Your task to perform on an android device: Go to privacy settings Image 0: 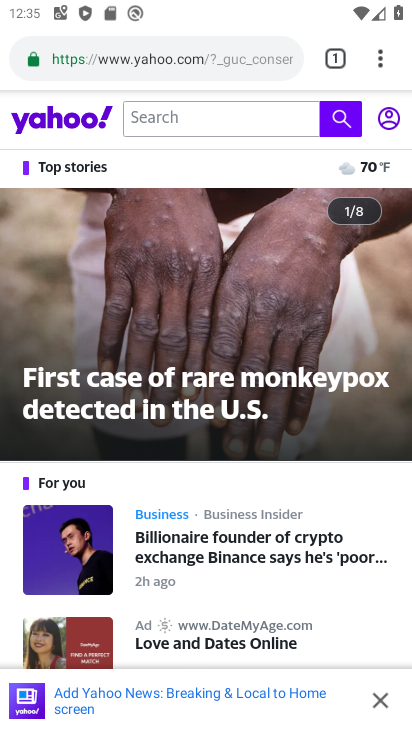
Step 0: click (376, 67)
Your task to perform on an android device: Go to privacy settings Image 1: 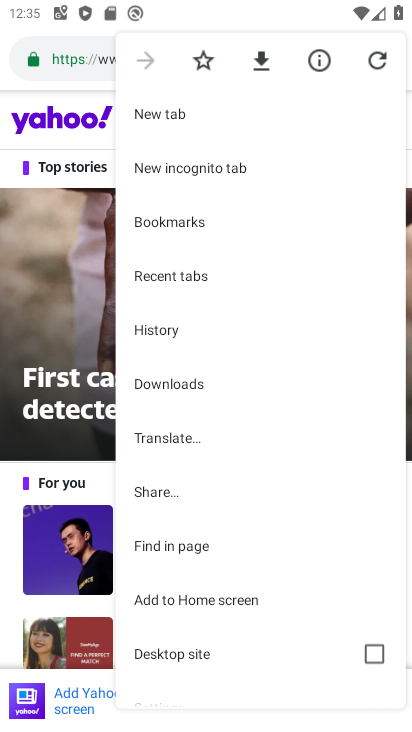
Step 1: press home button
Your task to perform on an android device: Go to privacy settings Image 2: 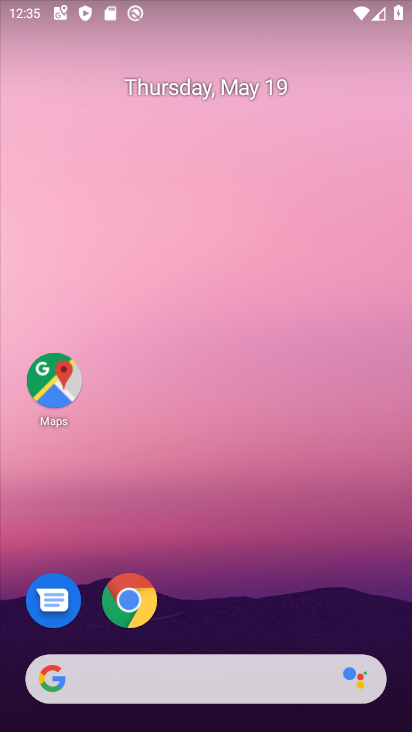
Step 2: drag from (280, 609) to (235, 74)
Your task to perform on an android device: Go to privacy settings Image 3: 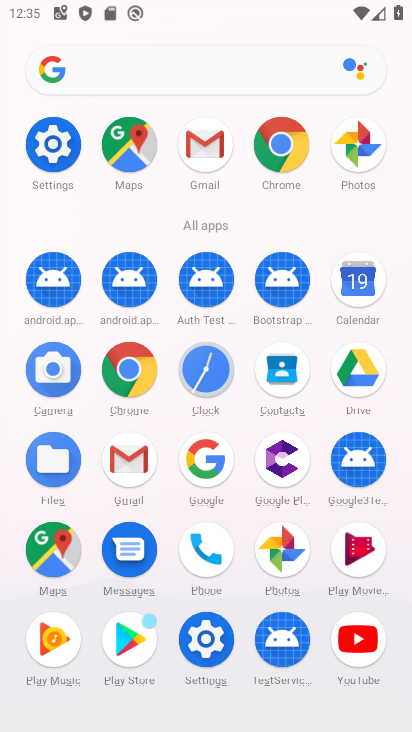
Step 3: click (47, 138)
Your task to perform on an android device: Go to privacy settings Image 4: 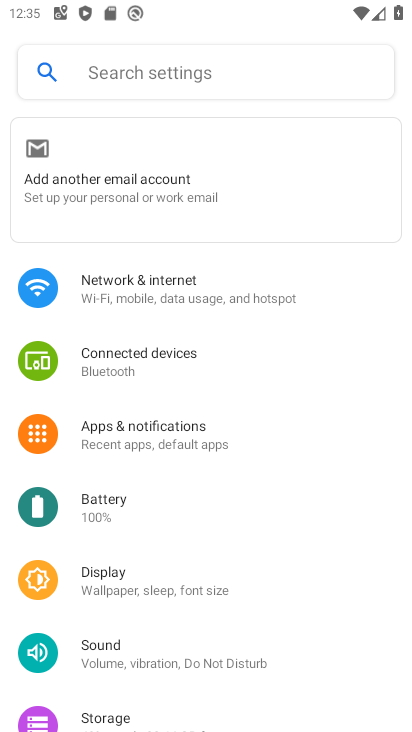
Step 4: drag from (159, 574) to (108, 294)
Your task to perform on an android device: Go to privacy settings Image 5: 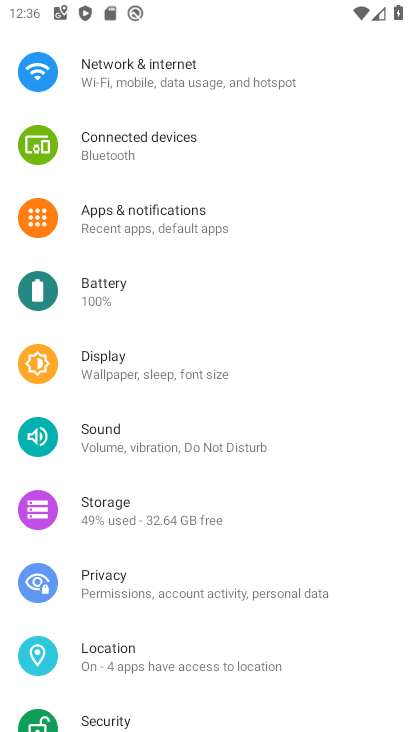
Step 5: click (148, 583)
Your task to perform on an android device: Go to privacy settings Image 6: 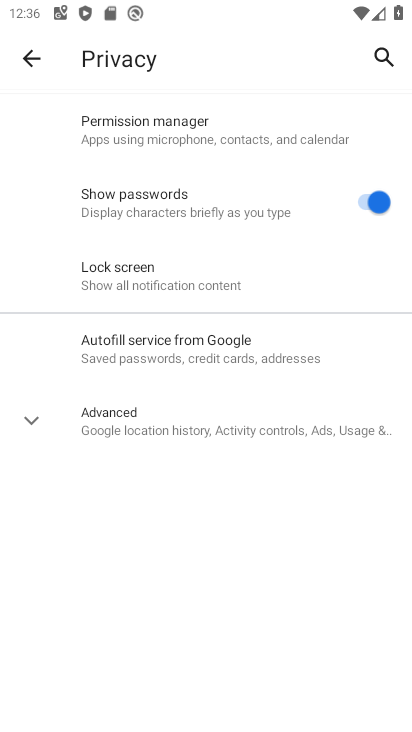
Step 6: task complete